Your task to perform on an android device: Add razer huntsman to the cart on costco.com Image 0: 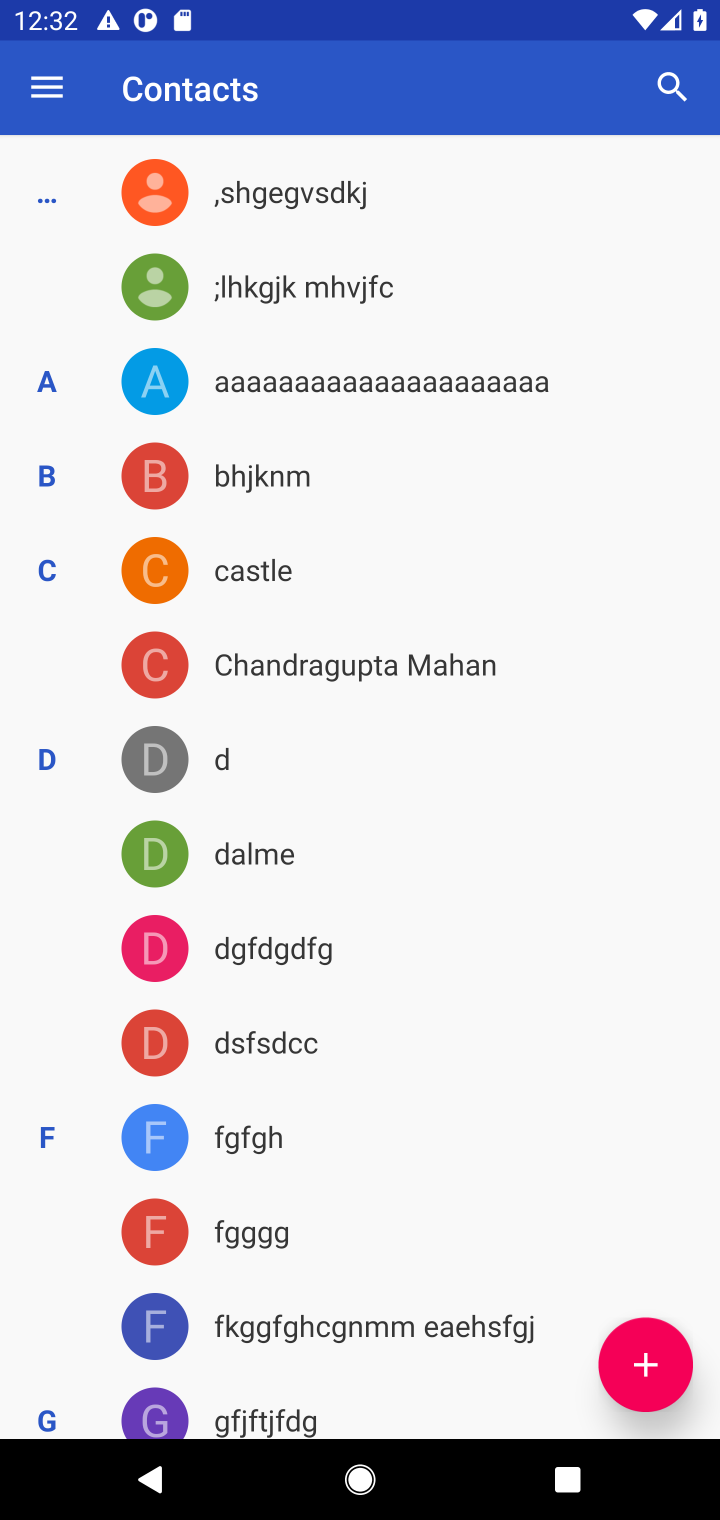
Step 0: press home button
Your task to perform on an android device: Add razer huntsman to the cart on costco.com Image 1: 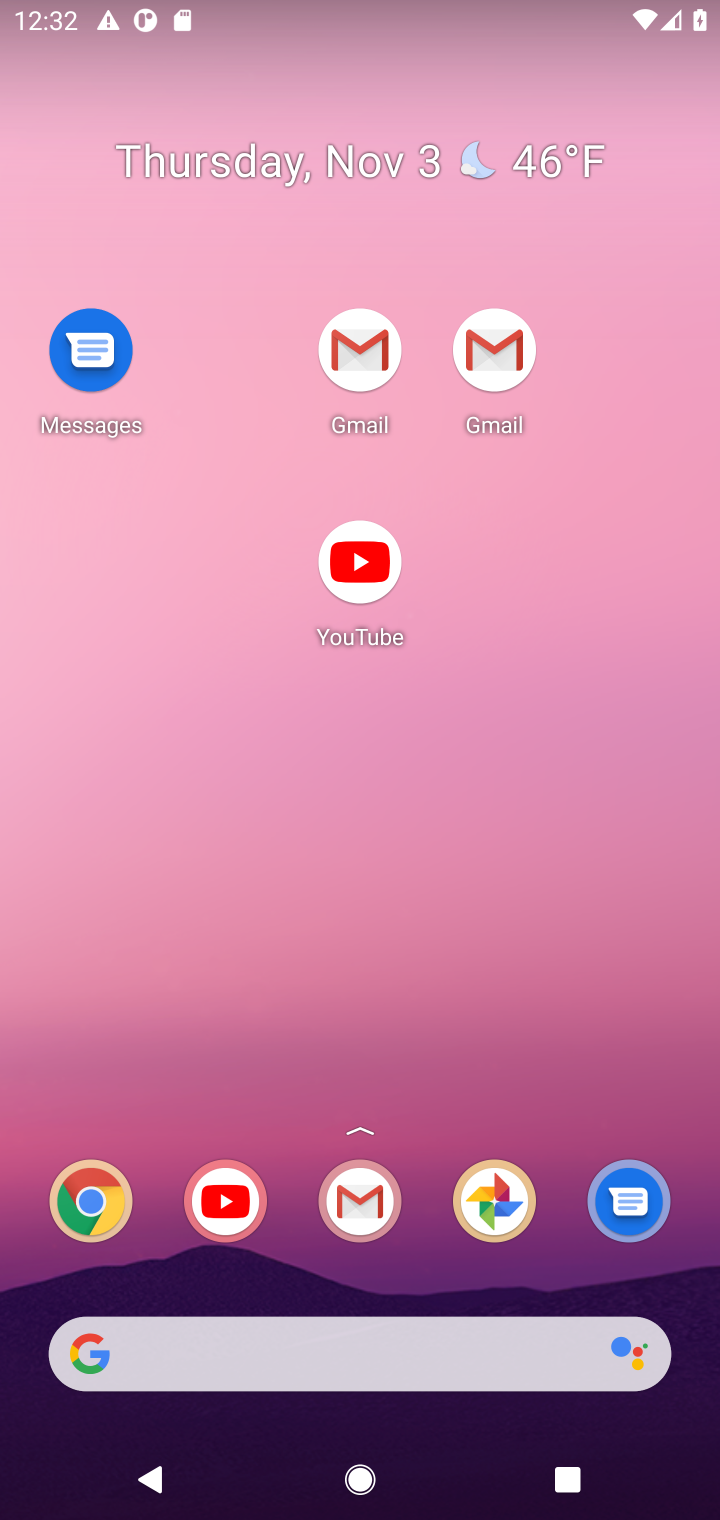
Step 1: drag from (377, 956) to (229, 162)
Your task to perform on an android device: Add razer huntsman to the cart on costco.com Image 2: 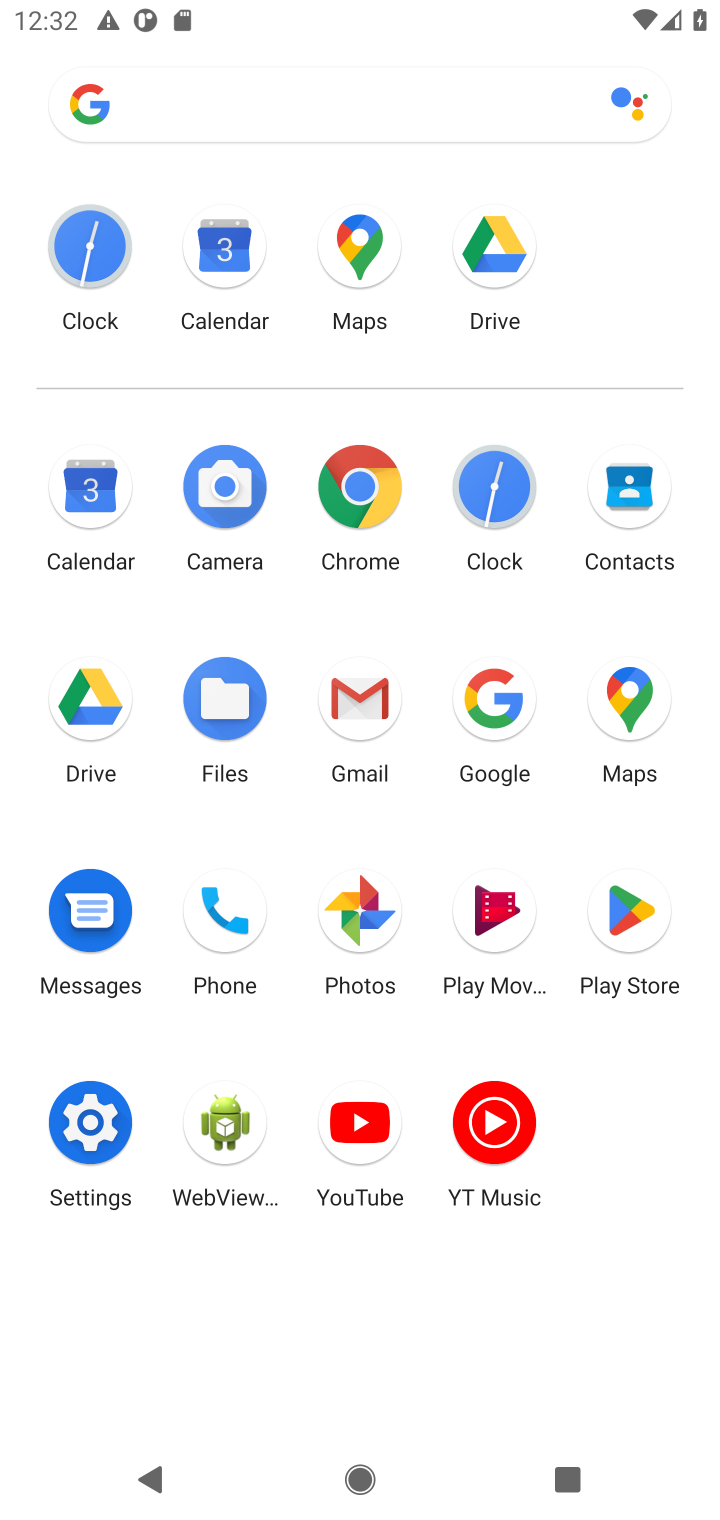
Step 2: click (365, 494)
Your task to perform on an android device: Add razer huntsman to the cart on costco.com Image 3: 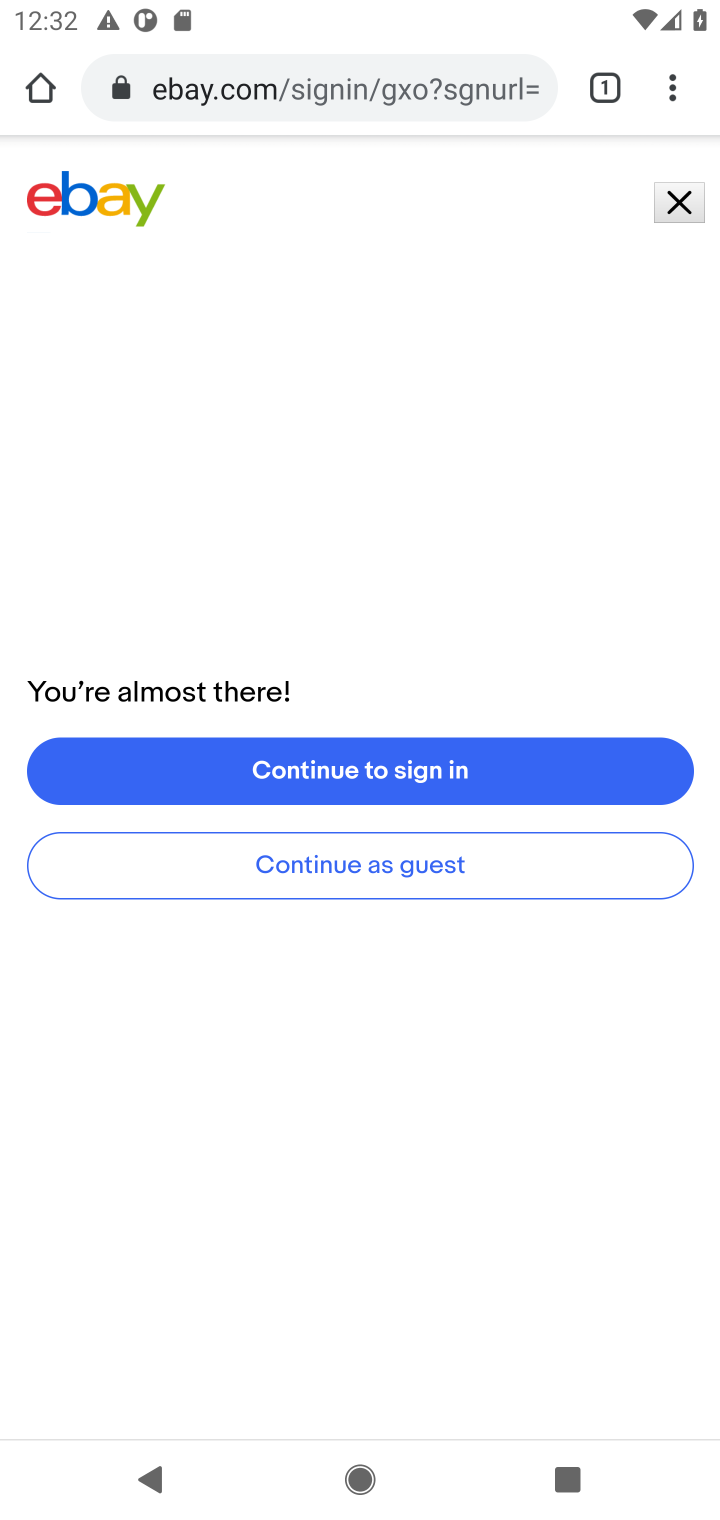
Step 3: click (406, 92)
Your task to perform on an android device: Add razer huntsman to the cart on costco.com Image 4: 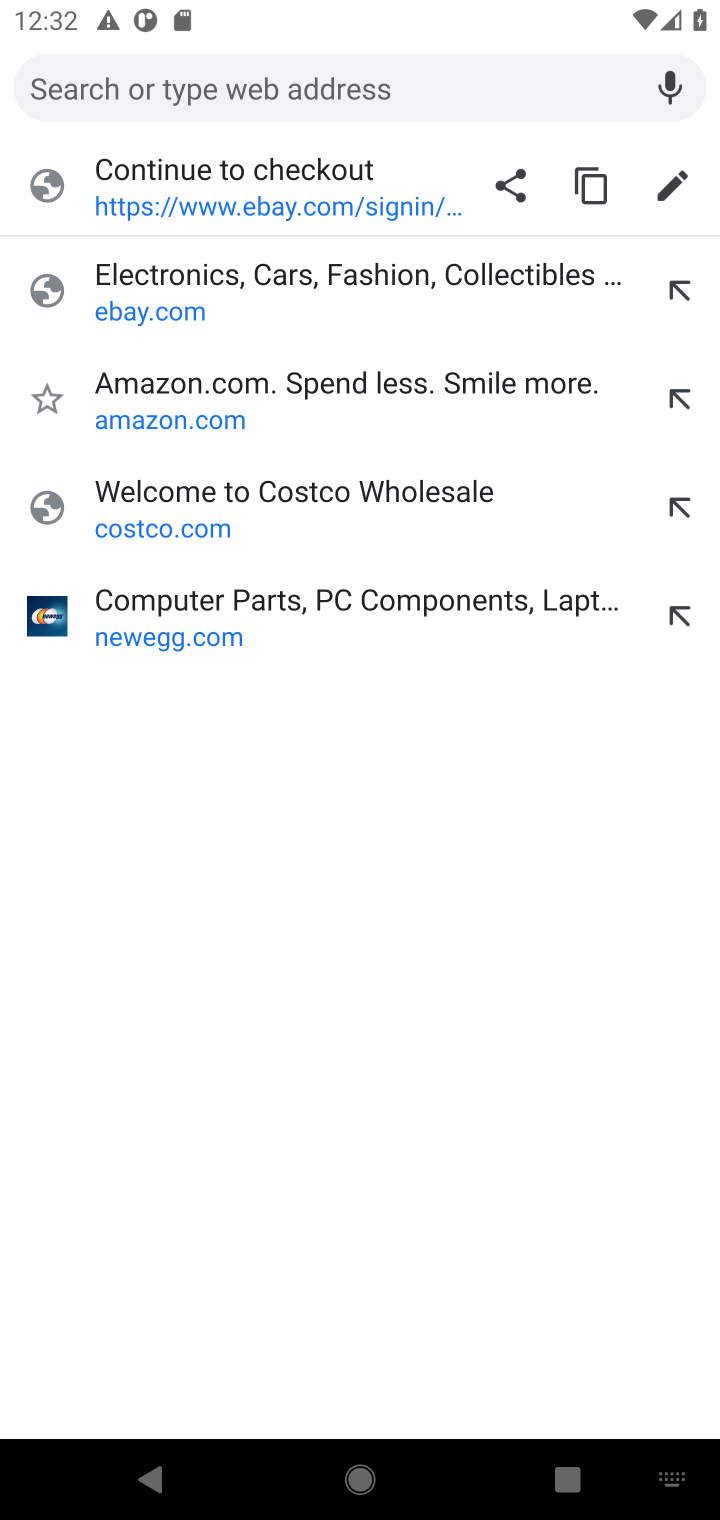
Step 4: type "costco.com"
Your task to perform on an android device: Add razer huntsman to the cart on costco.com Image 5: 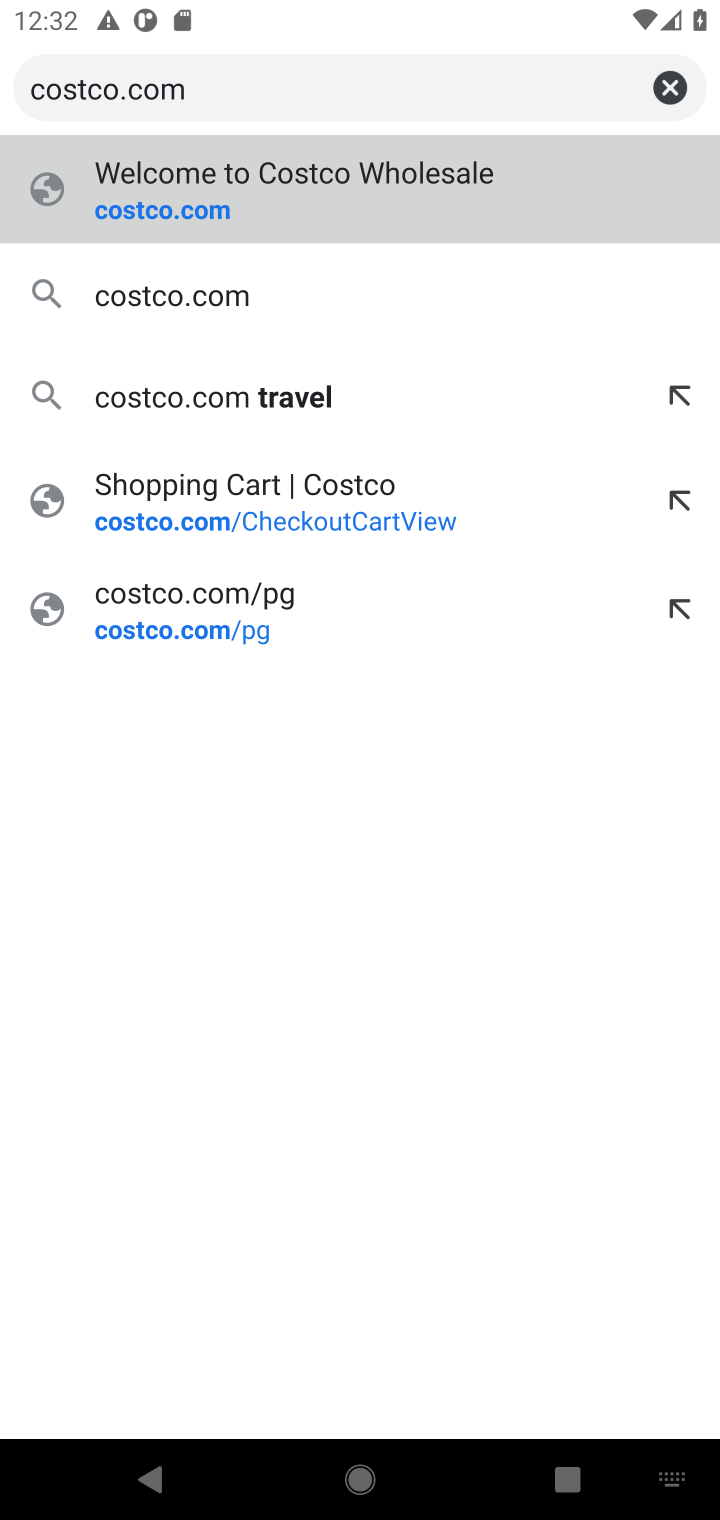
Step 5: press enter
Your task to perform on an android device: Add razer huntsman to the cart on costco.com Image 6: 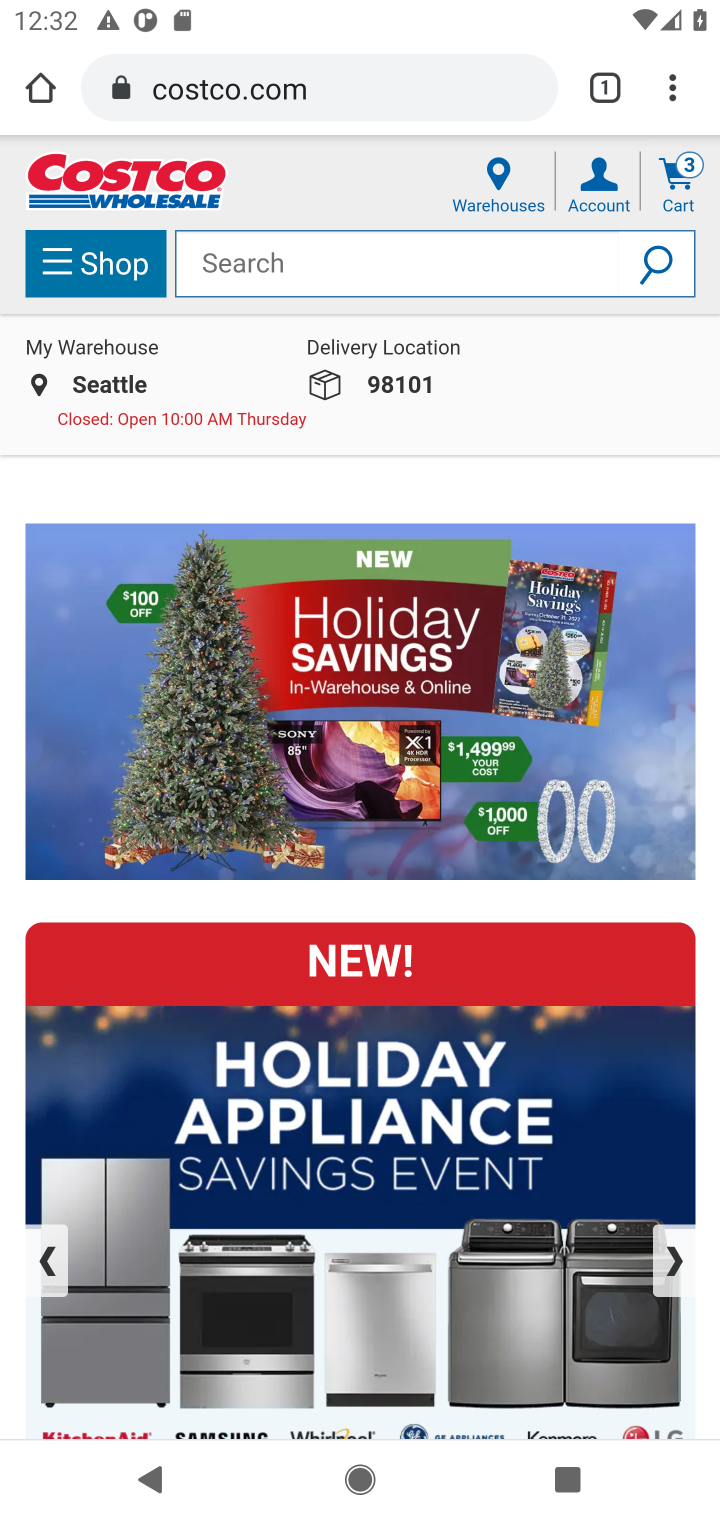
Step 6: click (350, 282)
Your task to perform on an android device: Add razer huntsman to the cart on costco.com Image 7: 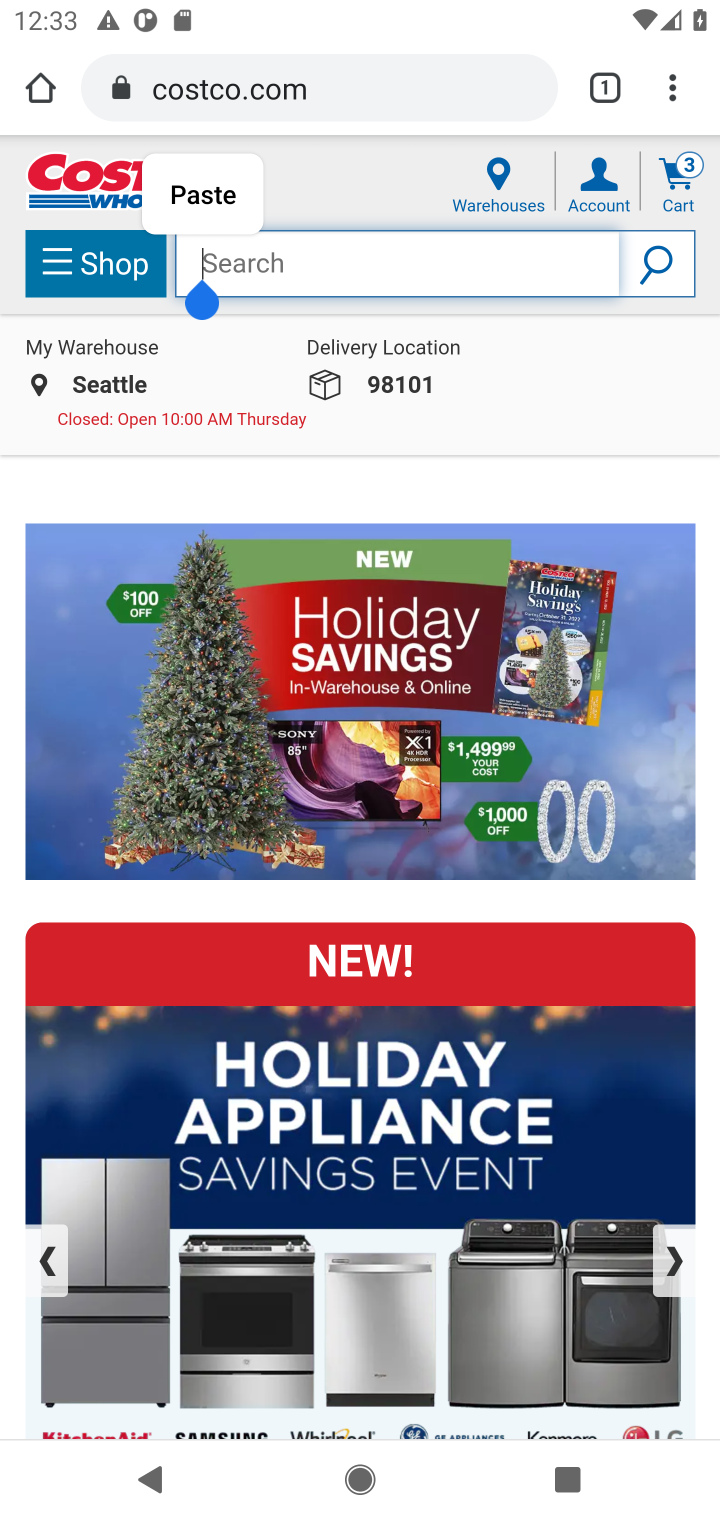
Step 7: type "razer huntsman"
Your task to perform on an android device: Add razer huntsman to the cart on costco.com Image 8: 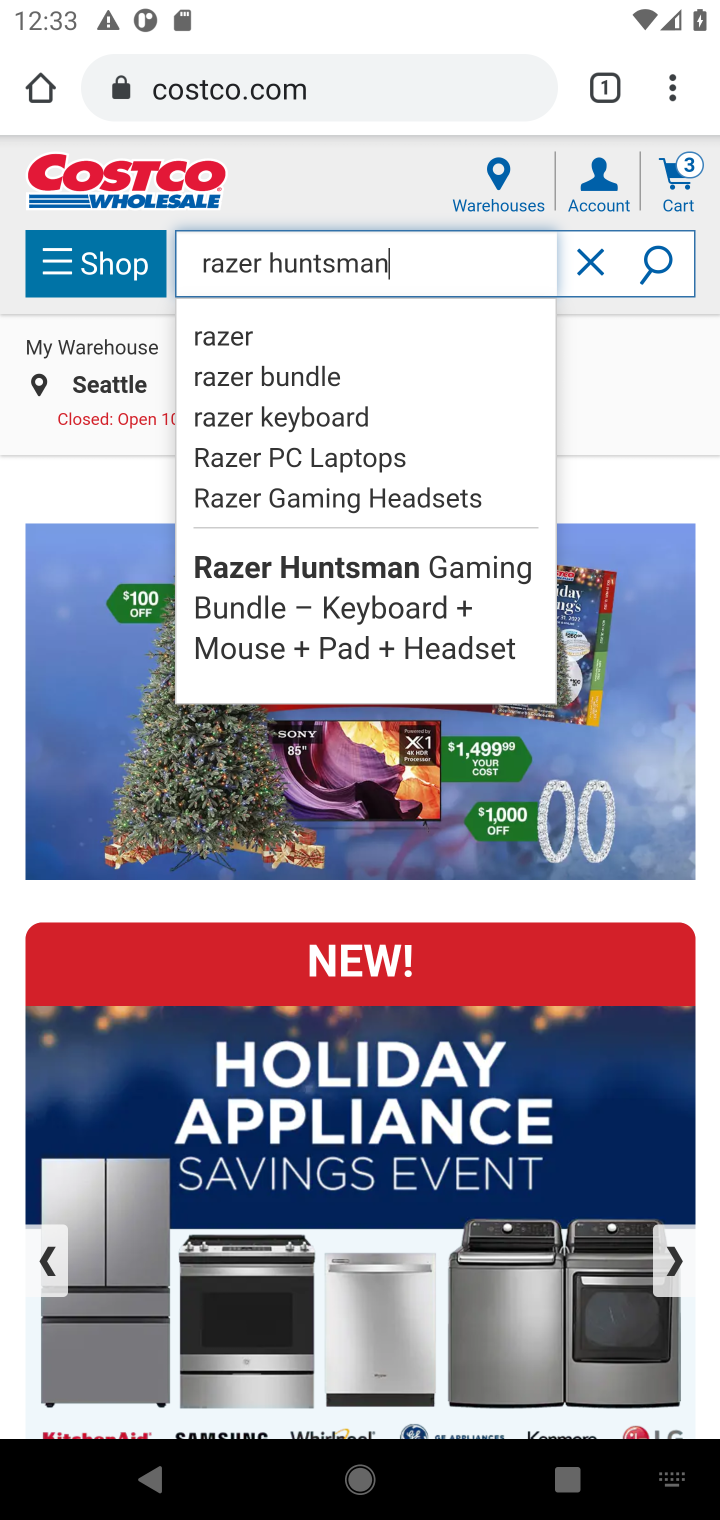
Step 8: press enter
Your task to perform on an android device: Add razer huntsman to the cart on costco.com Image 9: 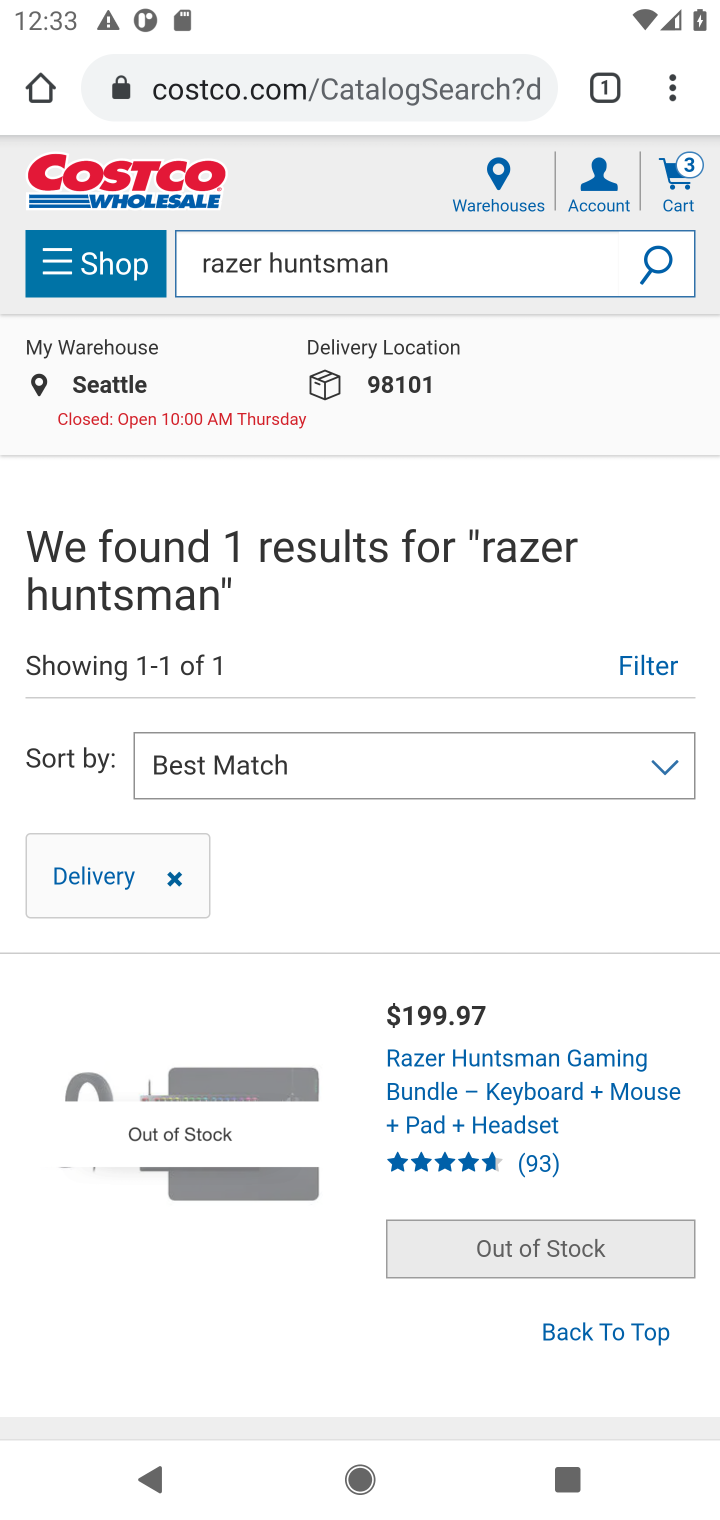
Step 9: drag from (442, 1115) to (455, 522)
Your task to perform on an android device: Add razer huntsman to the cart on costco.com Image 10: 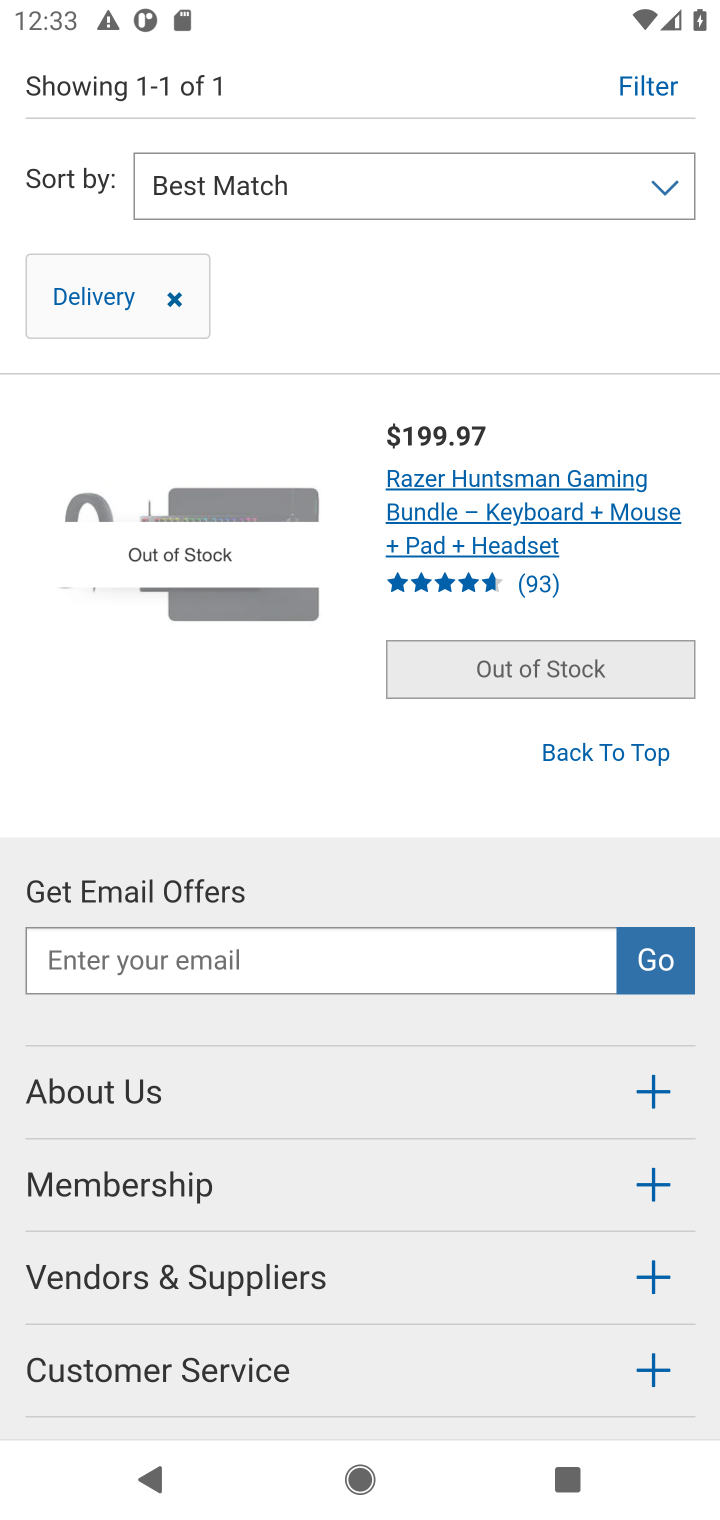
Step 10: click (436, 488)
Your task to perform on an android device: Add razer huntsman to the cart on costco.com Image 11: 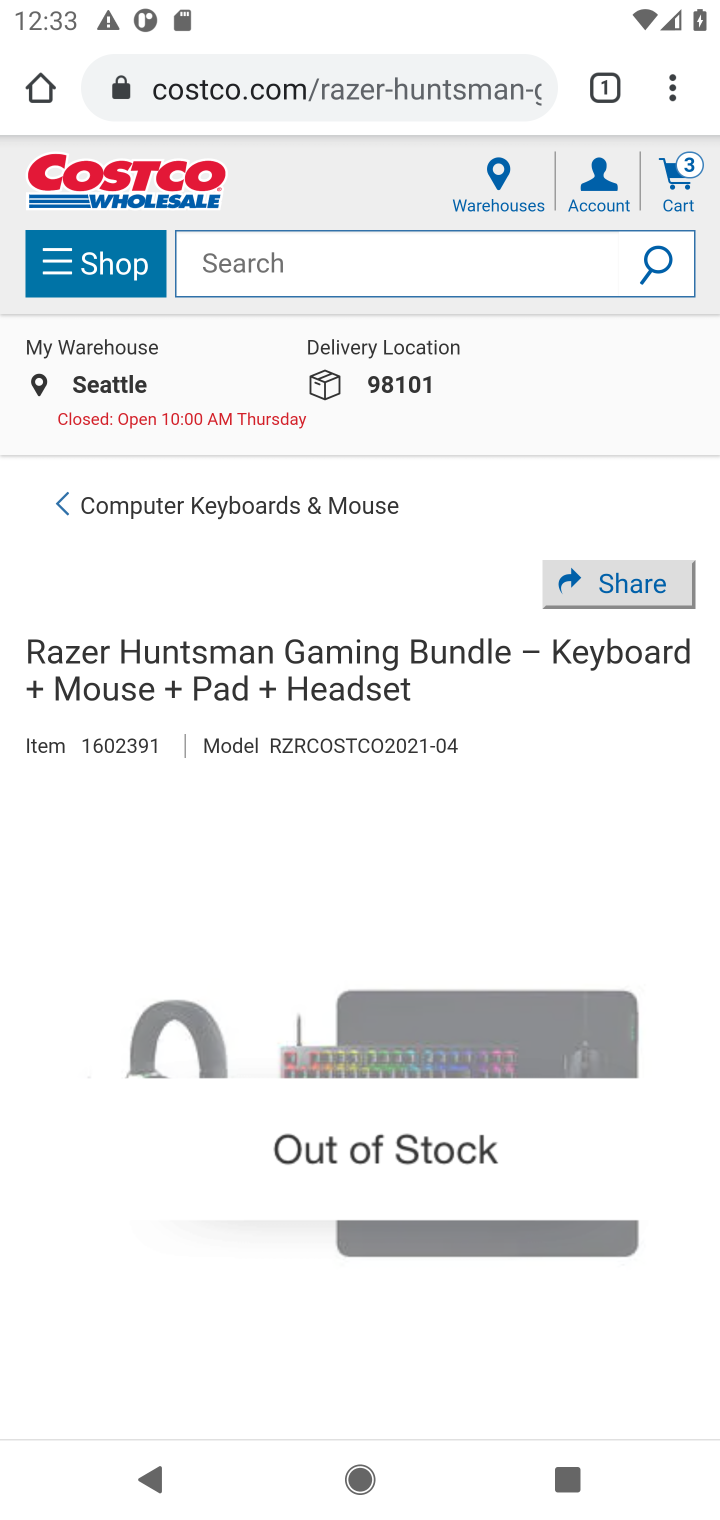
Step 11: task complete